Your task to perform on an android device: Go to sound settings Image 0: 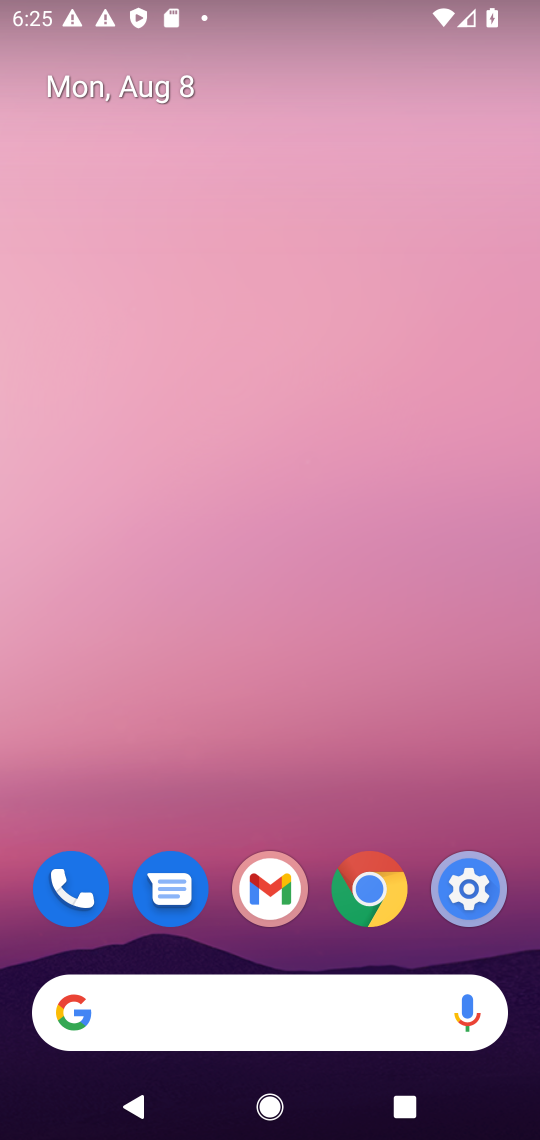
Step 0: click (479, 894)
Your task to perform on an android device: Go to sound settings Image 1: 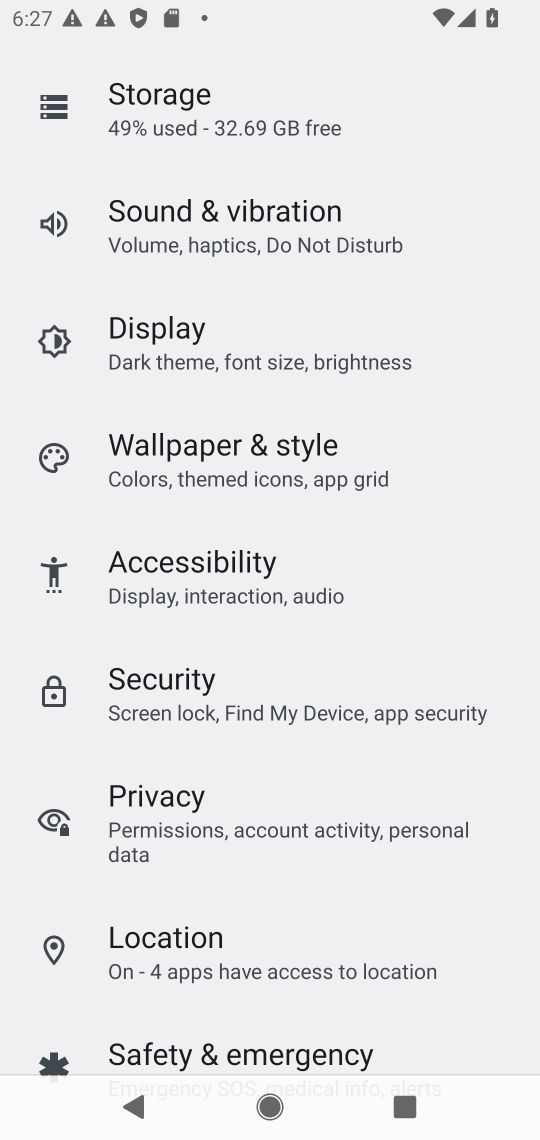
Step 1: click (220, 228)
Your task to perform on an android device: Go to sound settings Image 2: 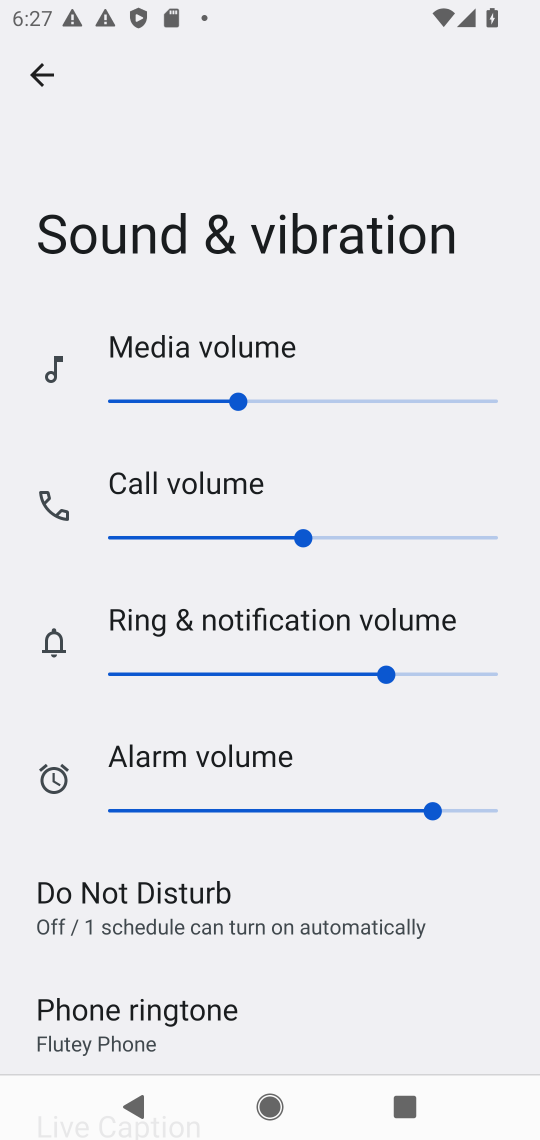
Step 2: task complete